Your task to perform on an android device: stop showing notifications on the lock screen Image 0: 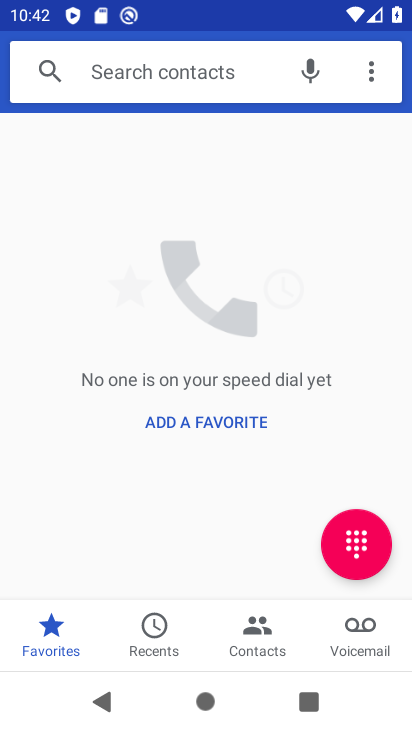
Step 0: press home button
Your task to perform on an android device: stop showing notifications on the lock screen Image 1: 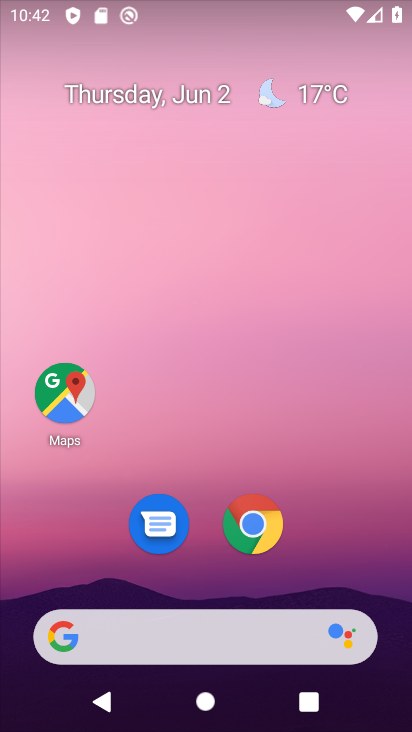
Step 1: drag from (204, 473) to (274, 15)
Your task to perform on an android device: stop showing notifications on the lock screen Image 2: 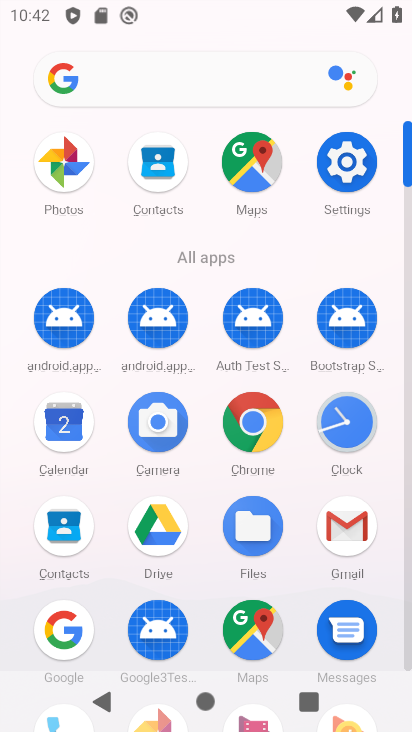
Step 2: click (344, 164)
Your task to perform on an android device: stop showing notifications on the lock screen Image 3: 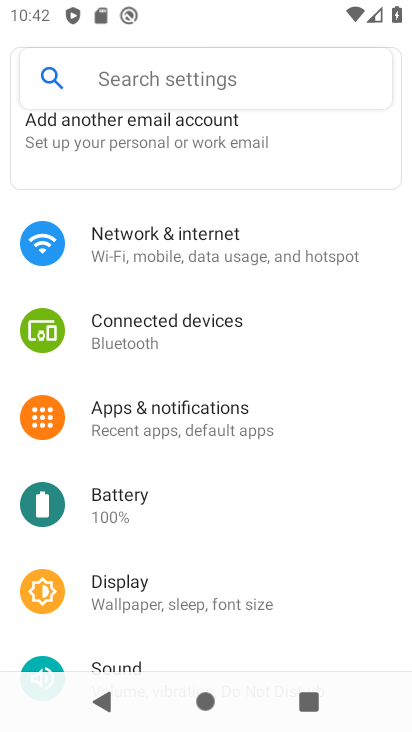
Step 3: click (213, 418)
Your task to perform on an android device: stop showing notifications on the lock screen Image 4: 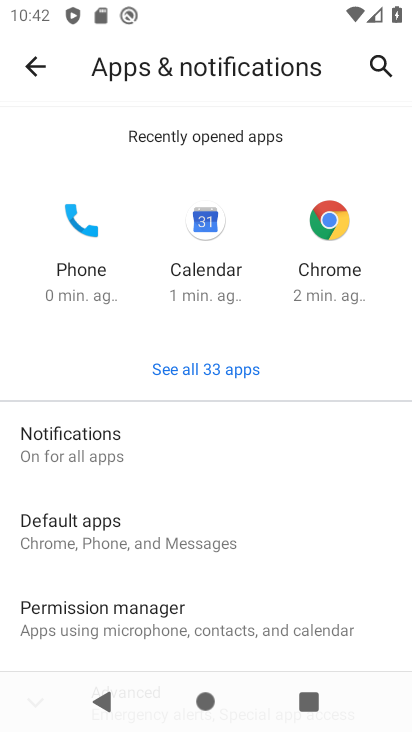
Step 4: click (205, 437)
Your task to perform on an android device: stop showing notifications on the lock screen Image 5: 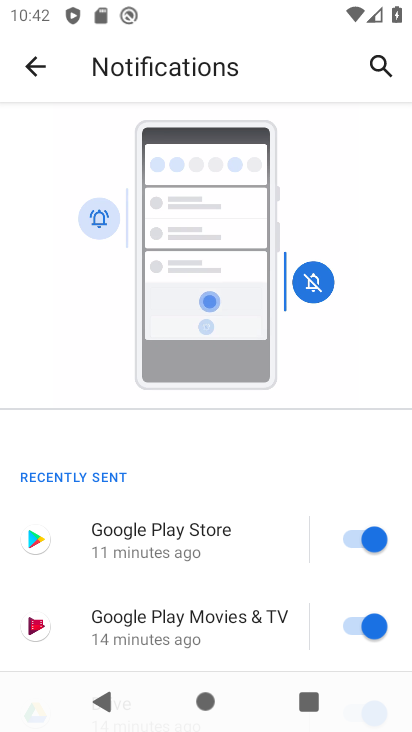
Step 5: drag from (200, 467) to (250, 30)
Your task to perform on an android device: stop showing notifications on the lock screen Image 6: 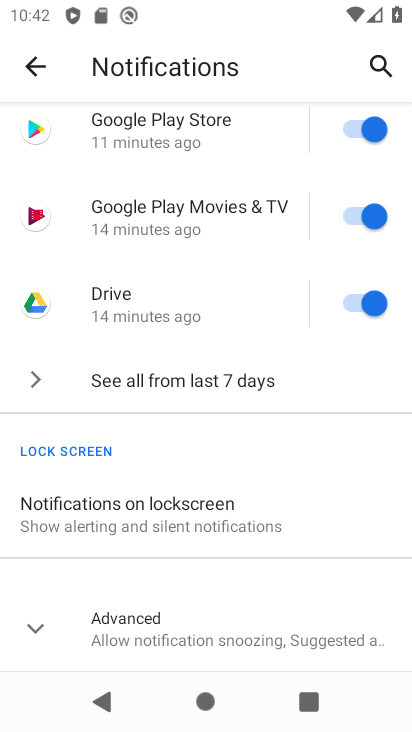
Step 6: click (258, 510)
Your task to perform on an android device: stop showing notifications on the lock screen Image 7: 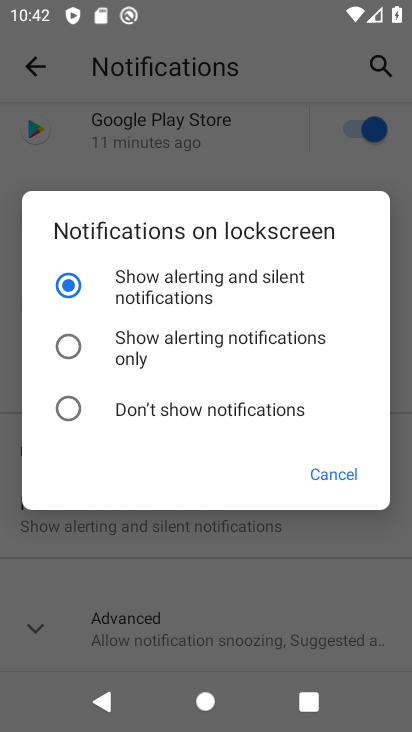
Step 7: click (65, 403)
Your task to perform on an android device: stop showing notifications on the lock screen Image 8: 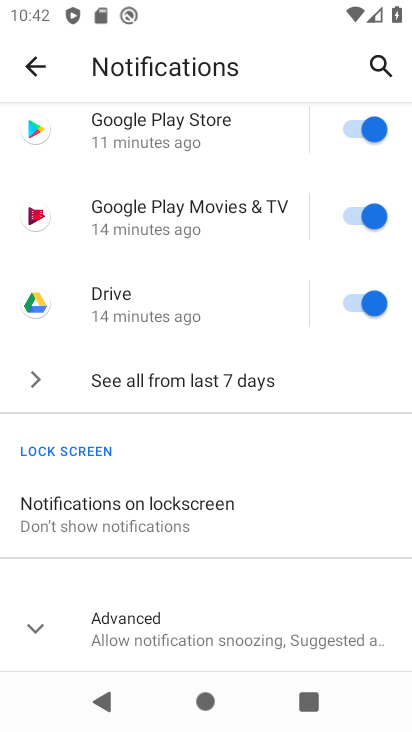
Step 8: task complete